Your task to perform on an android device: change text size in settings app Image 0: 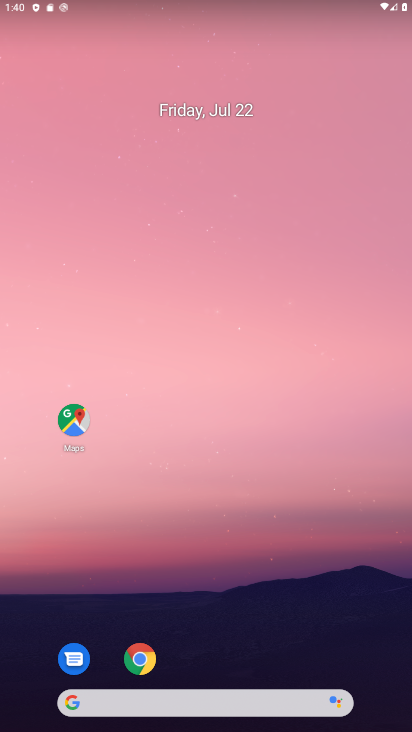
Step 0: drag from (309, 603) to (216, 194)
Your task to perform on an android device: change text size in settings app Image 1: 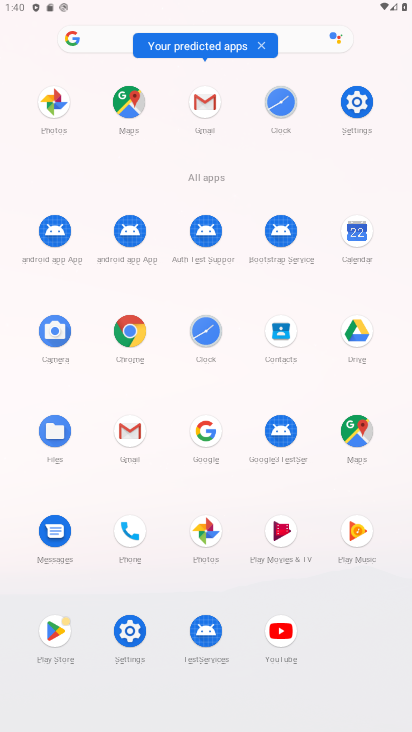
Step 1: click (353, 94)
Your task to perform on an android device: change text size in settings app Image 2: 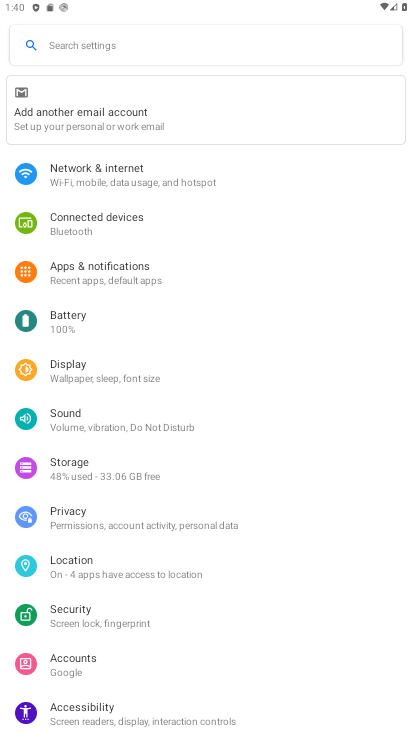
Step 2: click (69, 367)
Your task to perform on an android device: change text size in settings app Image 3: 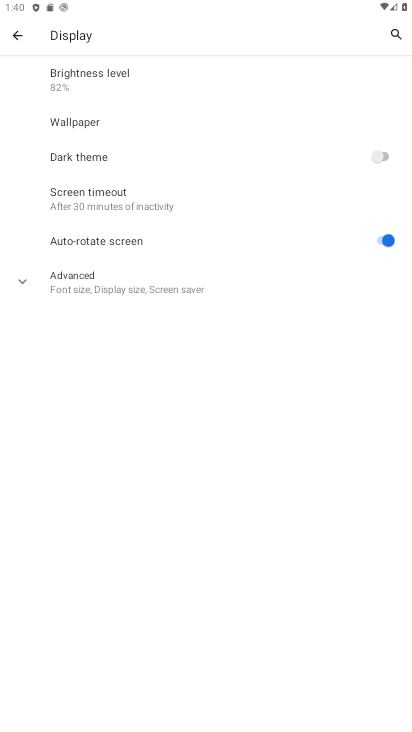
Step 3: click (78, 274)
Your task to perform on an android device: change text size in settings app Image 4: 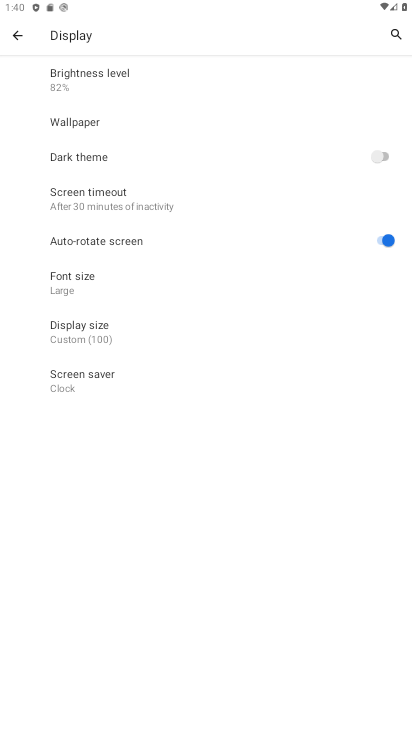
Step 4: click (100, 283)
Your task to perform on an android device: change text size in settings app Image 5: 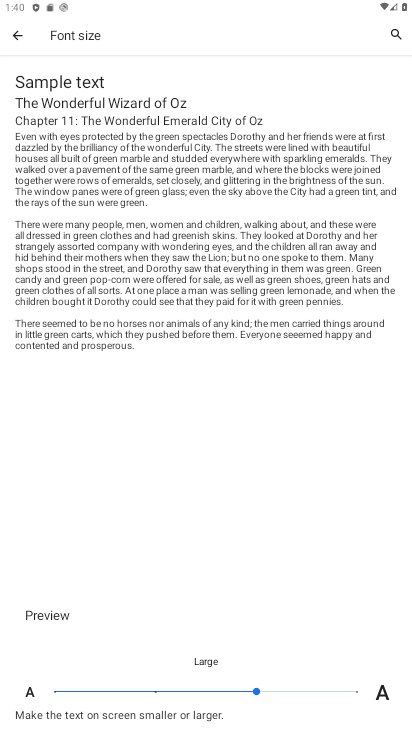
Step 5: task complete